Your task to perform on an android device: Show me popular games on the Play Store Image 0: 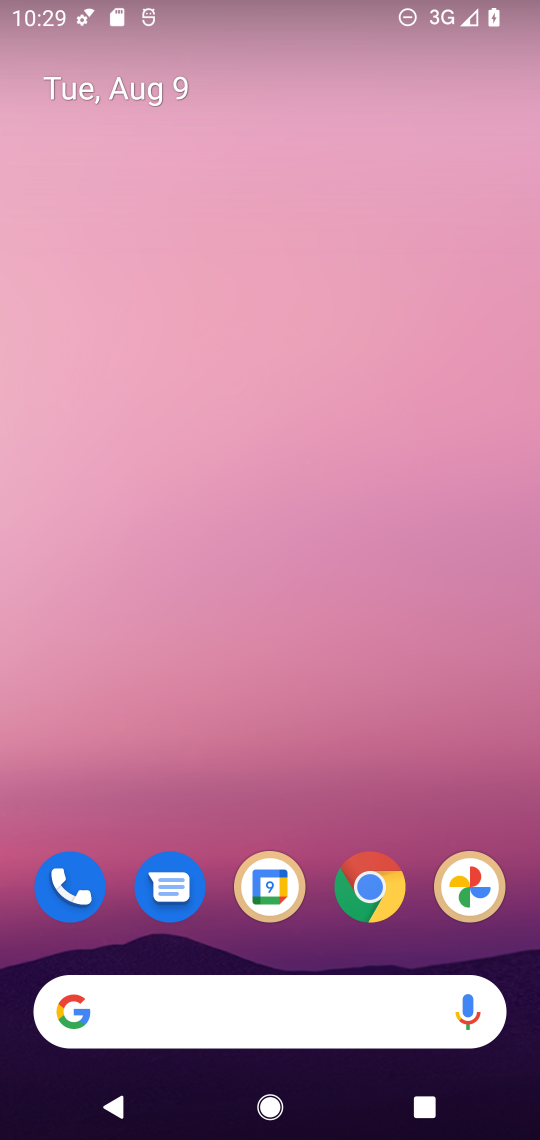
Step 0: drag from (297, 443) to (317, 128)
Your task to perform on an android device: Show me popular games on the Play Store Image 1: 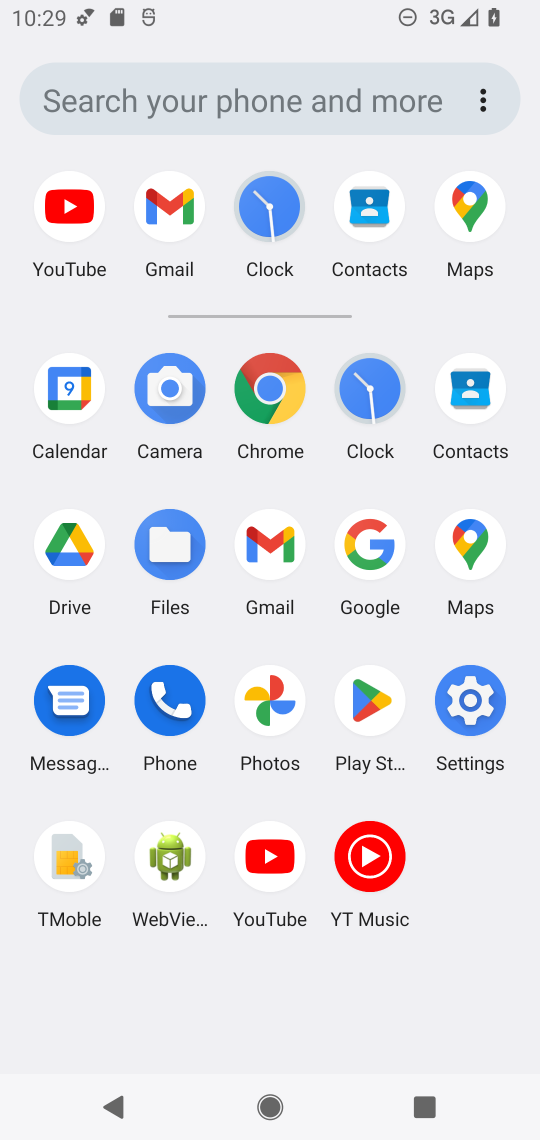
Step 1: click (385, 698)
Your task to perform on an android device: Show me popular games on the Play Store Image 2: 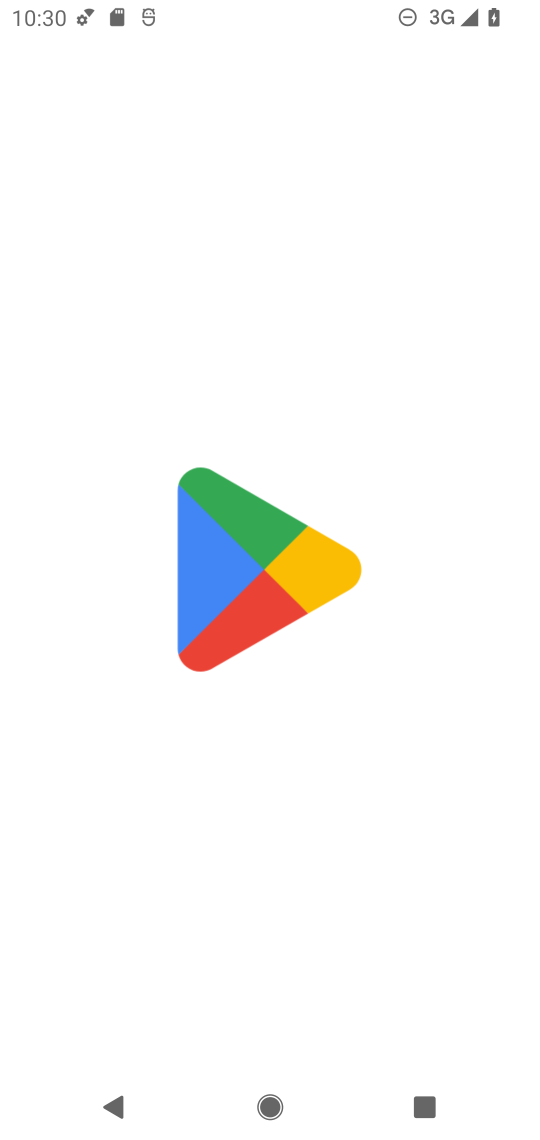
Step 2: task complete